Your task to perform on an android device: change the clock display to digital Image 0: 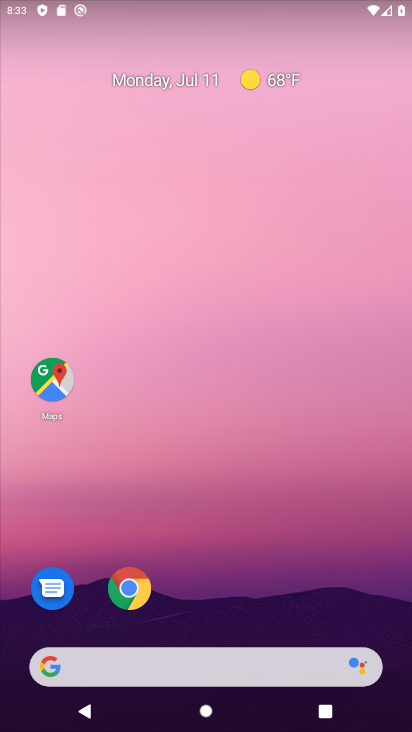
Step 0: drag from (252, 631) to (226, 17)
Your task to perform on an android device: change the clock display to digital Image 1: 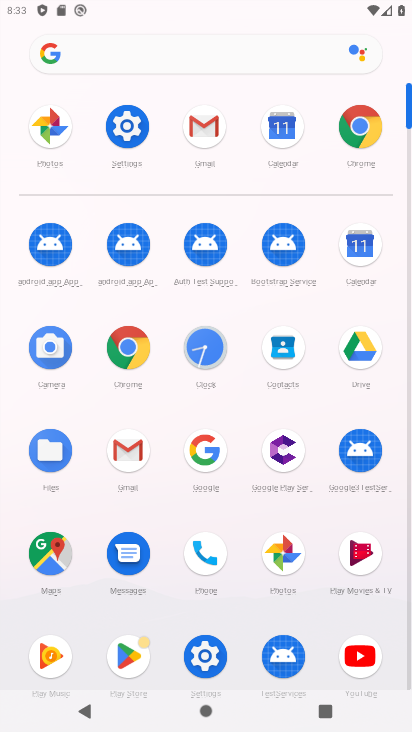
Step 1: click (197, 357)
Your task to perform on an android device: change the clock display to digital Image 2: 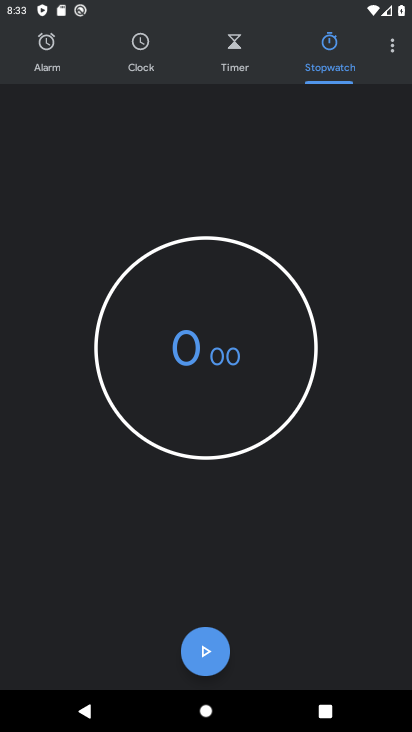
Step 2: click (382, 42)
Your task to perform on an android device: change the clock display to digital Image 3: 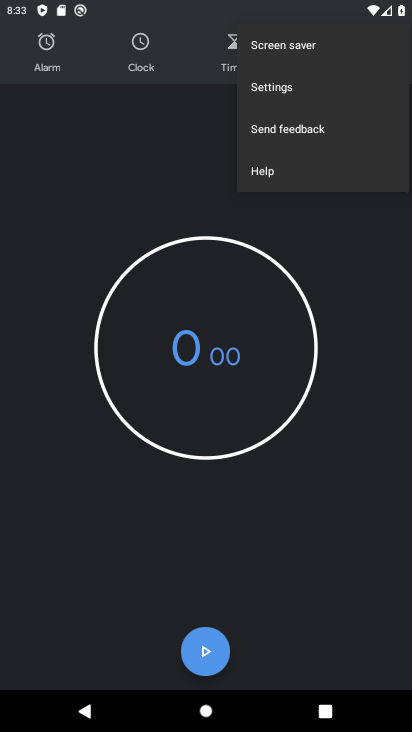
Step 3: click (285, 80)
Your task to perform on an android device: change the clock display to digital Image 4: 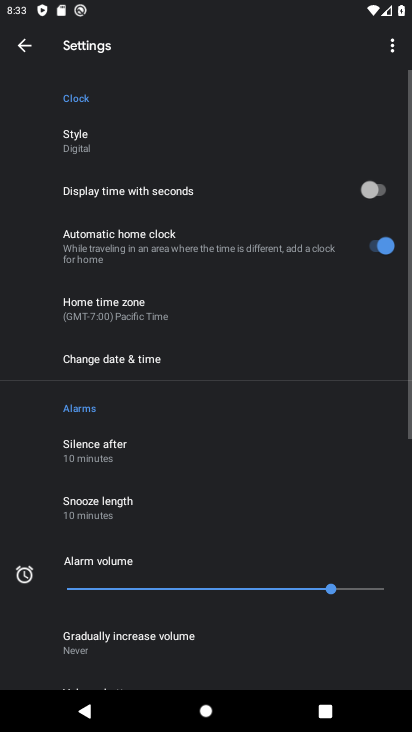
Step 4: click (107, 155)
Your task to perform on an android device: change the clock display to digital Image 5: 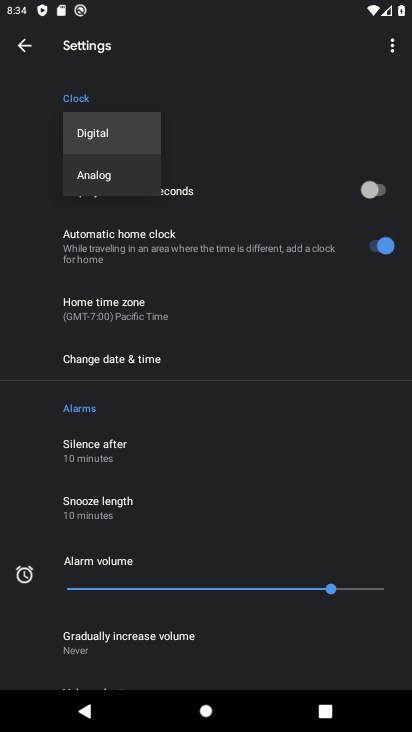
Step 5: click (107, 122)
Your task to perform on an android device: change the clock display to digital Image 6: 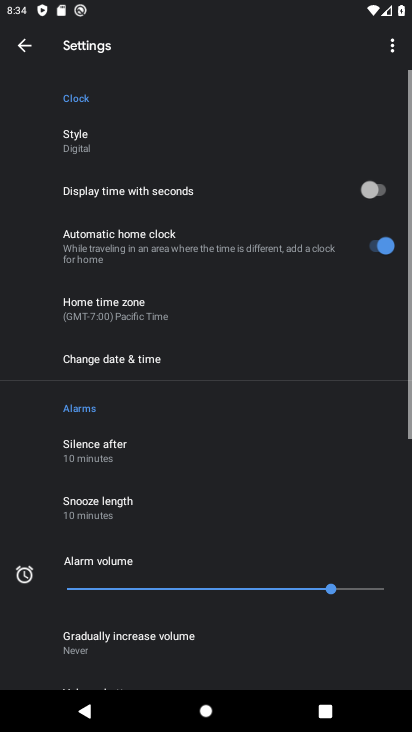
Step 6: task complete